Your task to perform on an android device: open device folders in google photos Image 0: 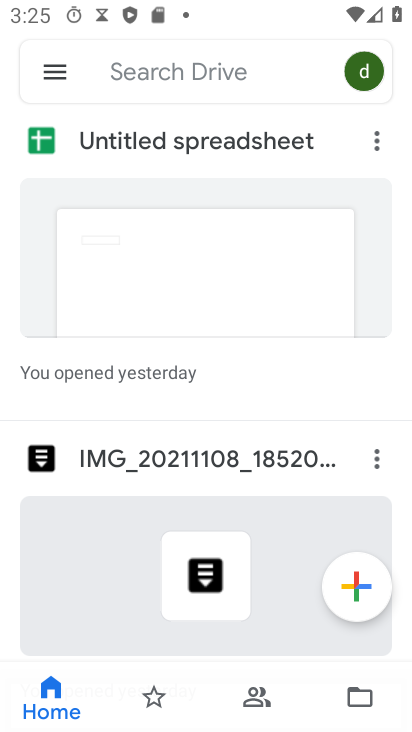
Step 0: press back button
Your task to perform on an android device: open device folders in google photos Image 1: 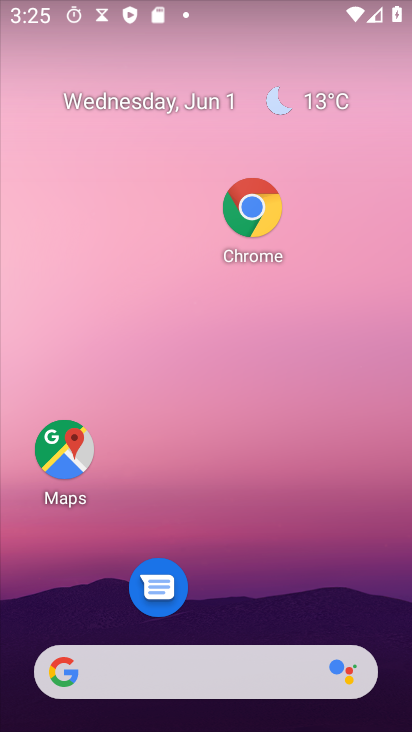
Step 1: drag from (195, 720) to (104, 147)
Your task to perform on an android device: open device folders in google photos Image 2: 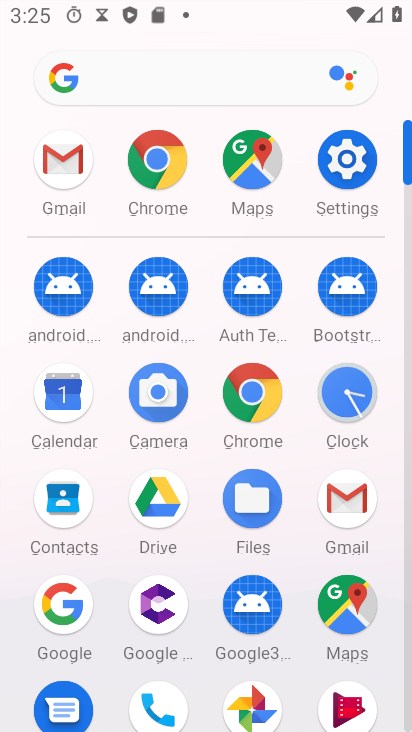
Step 2: click (246, 709)
Your task to perform on an android device: open device folders in google photos Image 3: 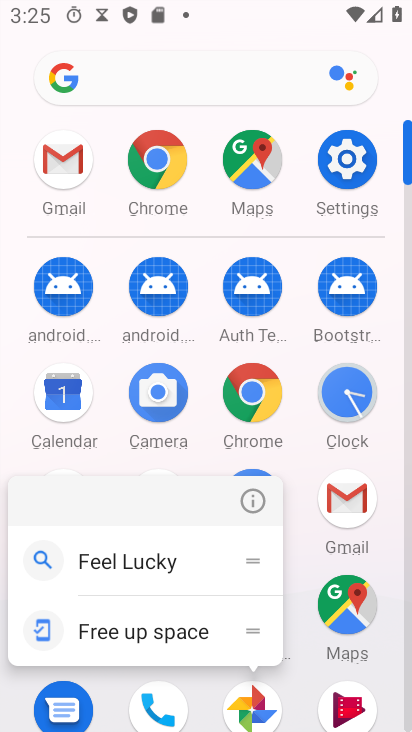
Step 3: click (242, 699)
Your task to perform on an android device: open device folders in google photos Image 4: 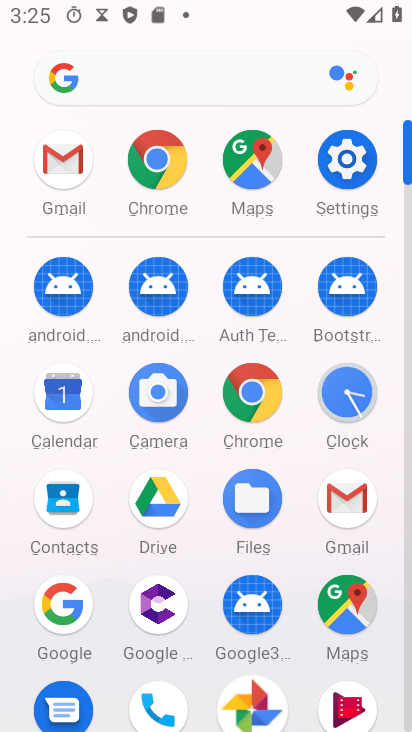
Step 4: click (242, 701)
Your task to perform on an android device: open device folders in google photos Image 5: 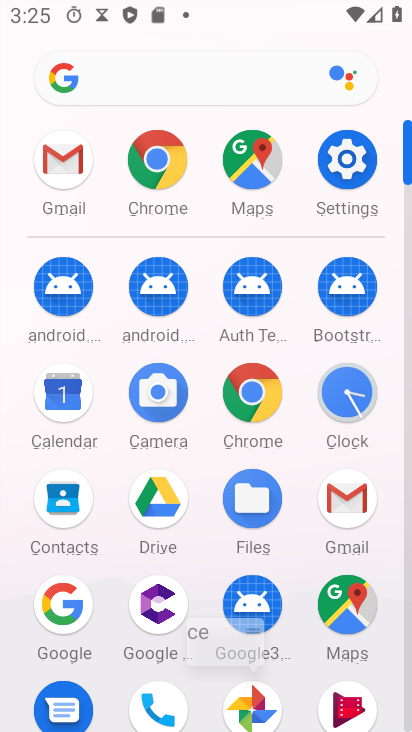
Step 5: click (242, 701)
Your task to perform on an android device: open device folders in google photos Image 6: 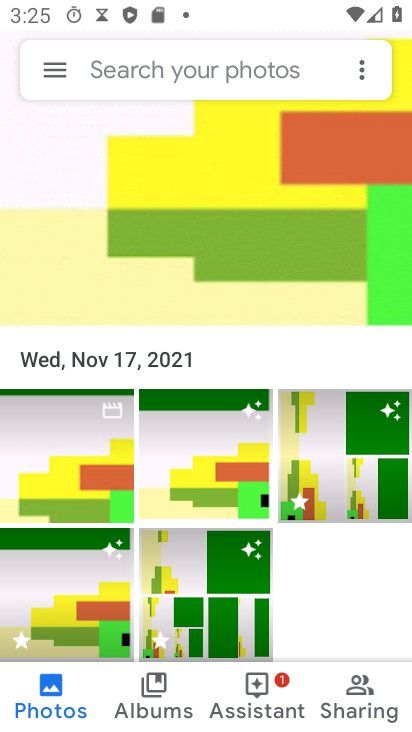
Step 6: click (49, 78)
Your task to perform on an android device: open device folders in google photos Image 7: 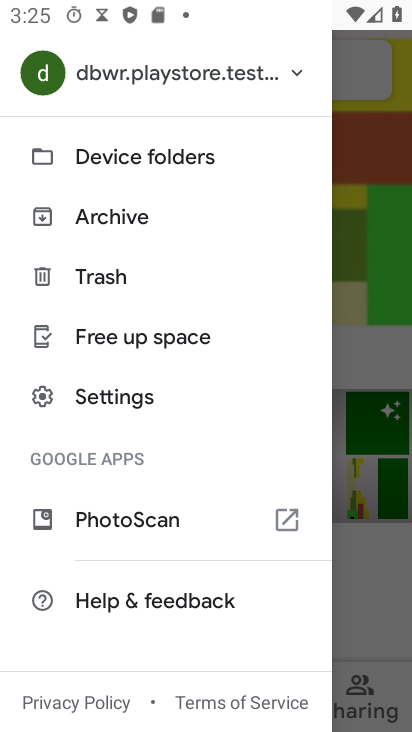
Step 7: click (136, 158)
Your task to perform on an android device: open device folders in google photos Image 8: 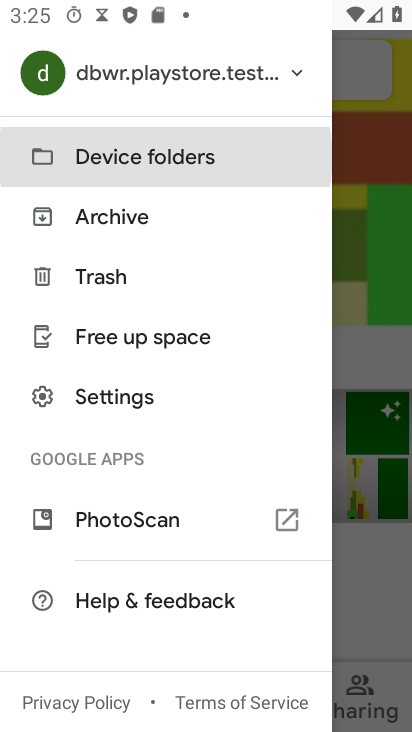
Step 8: click (136, 158)
Your task to perform on an android device: open device folders in google photos Image 9: 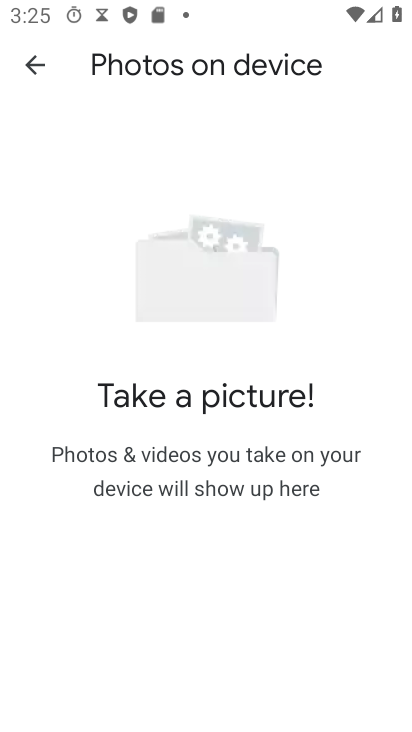
Step 9: task complete